Your task to perform on an android device: turn on improve location accuracy Image 0: 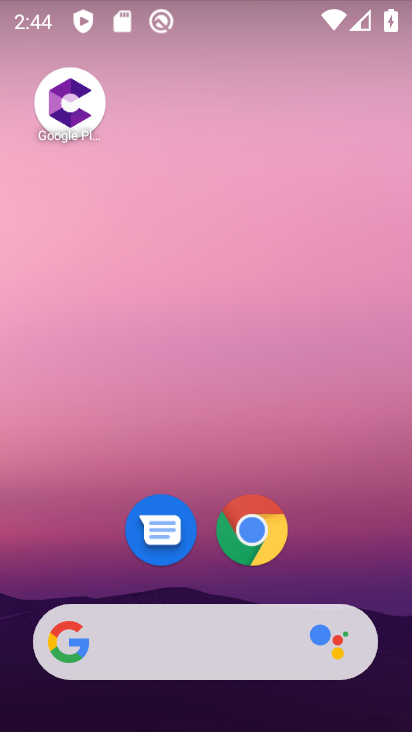
Step 0: drag from (234, 651) to (218, 1)
Your task to perform on an android device: turn on improve location accuracy Image 1: 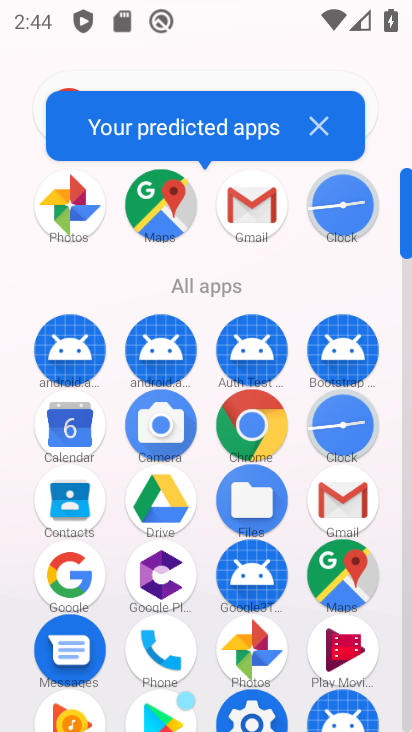
Step 1: drag from (276, 615) to (278, 410)
Your task to perform on an android device: turn on improve location accuracy Image 2: 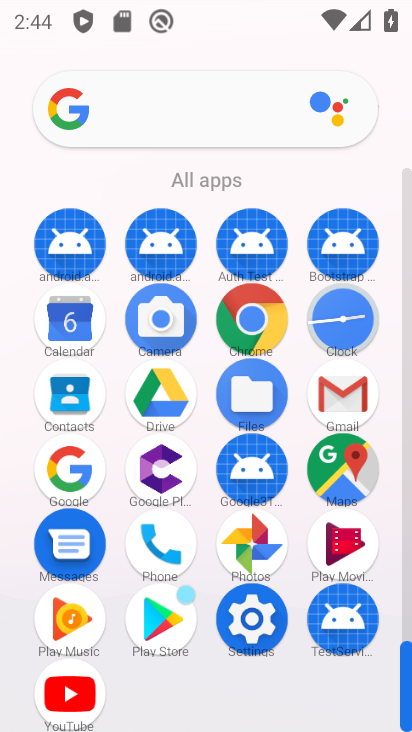
Step 2: click (256, 642)
Your task to perform on an android device: turn on improve location accuracy Image 3: 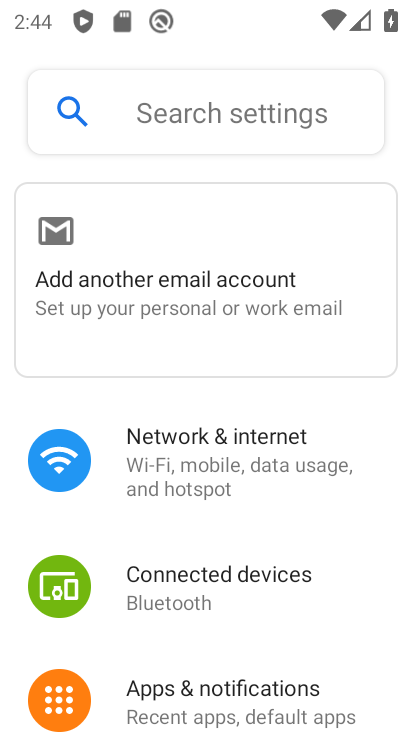
Step 3: drag from (221, 529) to (224, 312)
Your task to perform on an android device: turn on improve location accuracy Image 4: 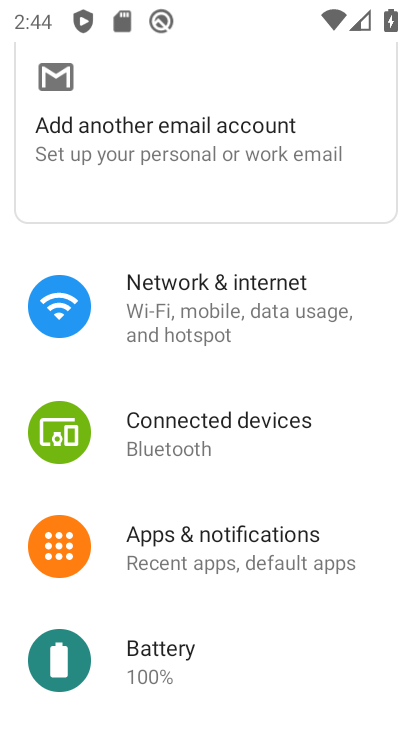
Step 4: drag from (342, 254) to (344, 198)
Your task to perform on an android device: turn on improve location accuracy Image 5: 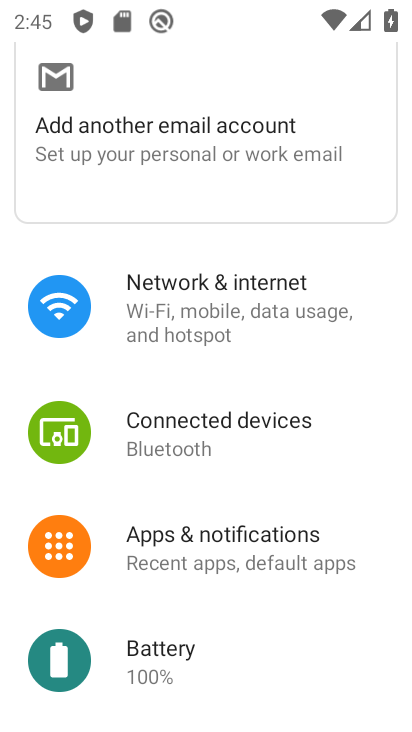
Step 5: drag from (243, 507) to (278, 293)
Your task to perform on an android device: turn on improve location accuracy Image 6: 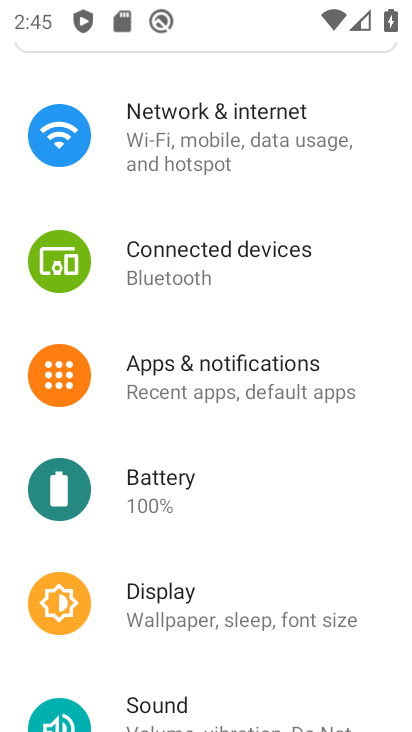
Step 6: drag from (241, 561) to (240, 370)
Your task to perform on an android device: turn on improve location accuracy Image 7: 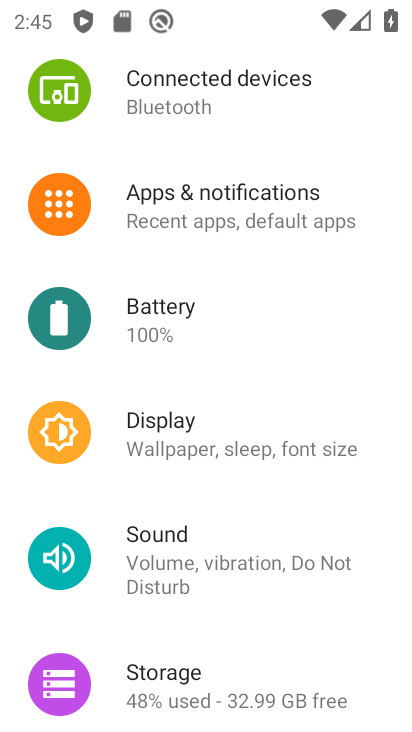
Step 7: drag from (232, 602) to (232, 381)
Your task to perform on an android device: turn on improve location accuracy Image 8: 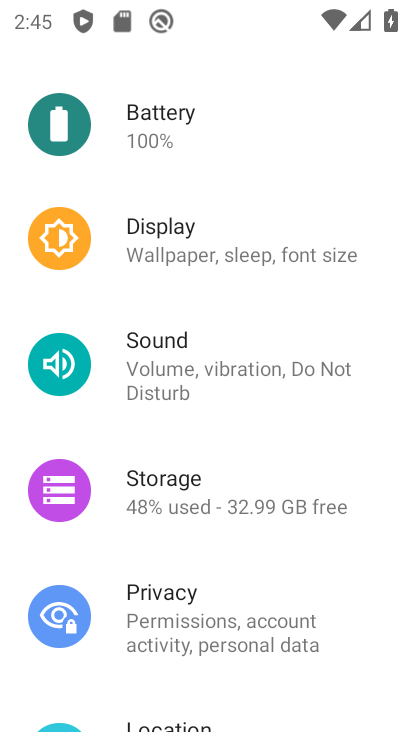
Step 8: drag from (242, 571) to (235, 195)
Your task to perform on an android device: turn on improve location accuracy Image 9: 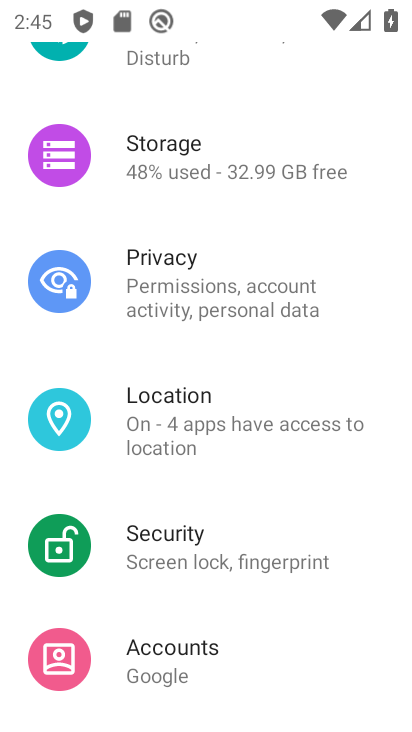
Step 9: drag from (248, 435) to (275, 190)
Your task to perform on an android device: turn on improve location accuracy Image 10: 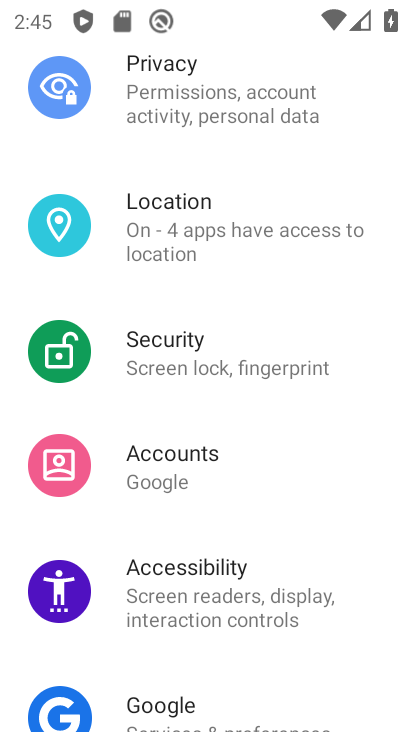
Step 10: drag from (270, 656) to (294, 325)
Your task to perform on an android device: turn on improve location accuracy Image 11: 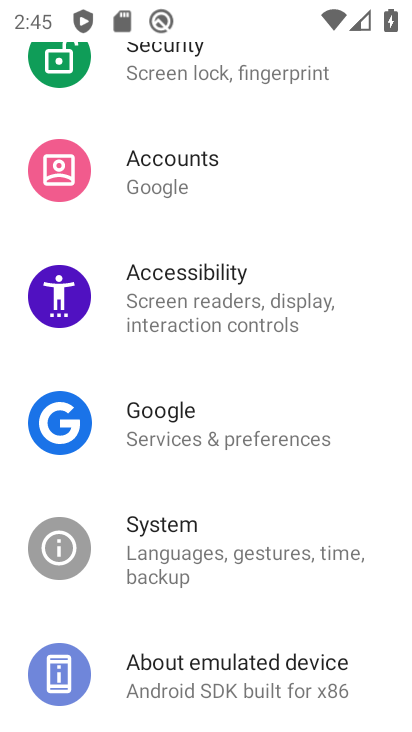
Step 11: drag from (270, 598) to (211, 693)
Your task to perform on an android device: turn on improve location accuracy Image 12: 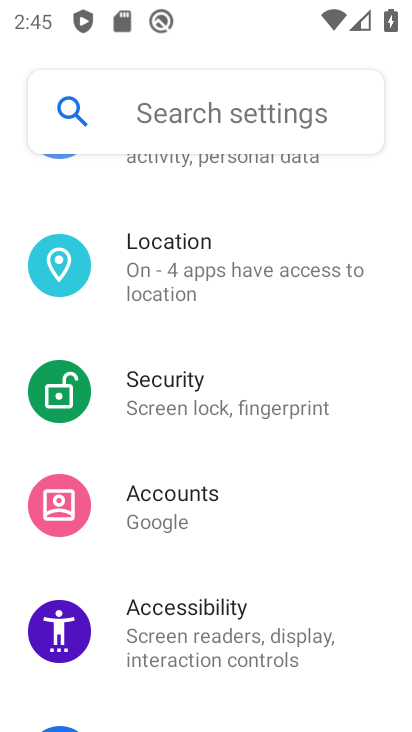
Step 12: drag from (232, 364) to (207, 553)
Your task to perform on an android device: turn on improve location accuracy Image 13: 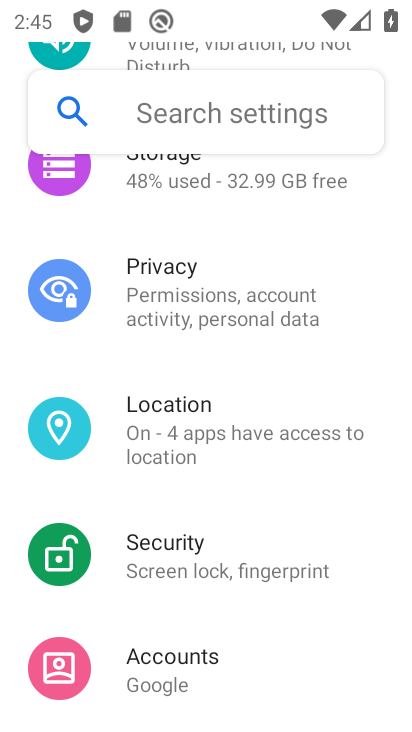
Step 13: drag from (239, 388) to (208, 617)
Your task to perform on an android device: turn on improve location accuracy Image 14: 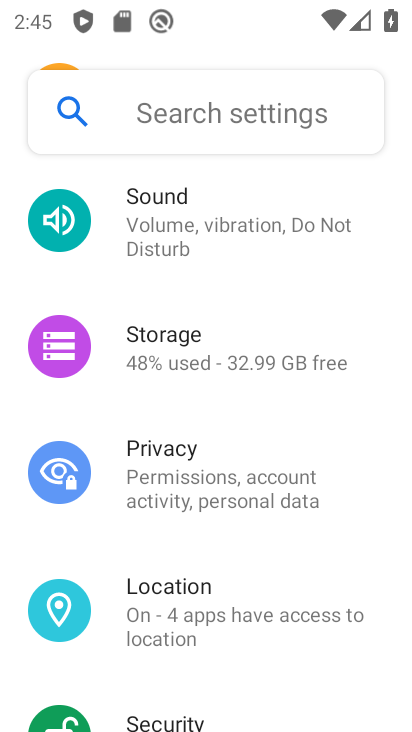
Step 14: click (251, 614)
Your task to perform on an android device: turn on improve location accuracy Image 15: 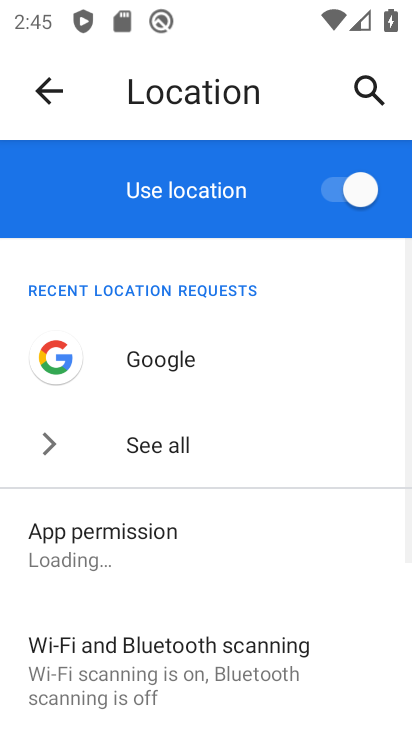
Step 15: drag from (257, 523) to (271, 355)
Your task to perform on an android device: turn on improve location accuracy Image 16: 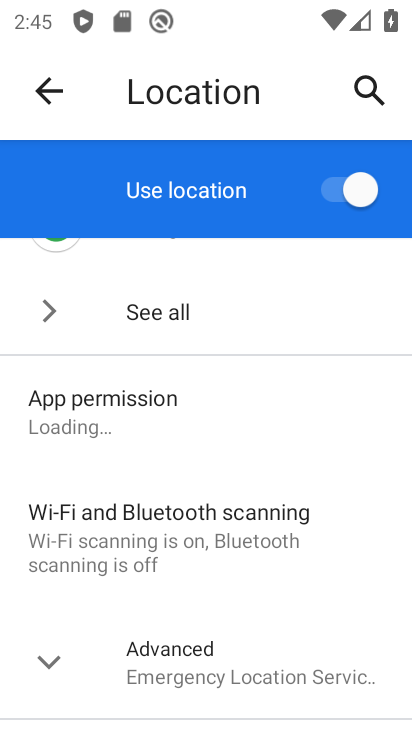
Step 16: click (289, 675)
Your task to perform on an android device: turn on improve location accuracy Image 17: 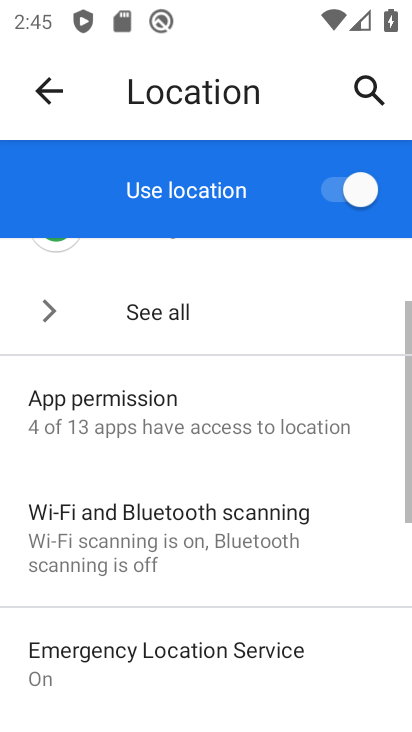
Step 17: drag from (266, 603) to (286, 320)
Your task to perform on an android device: turn on improve location accuracy Image 18: 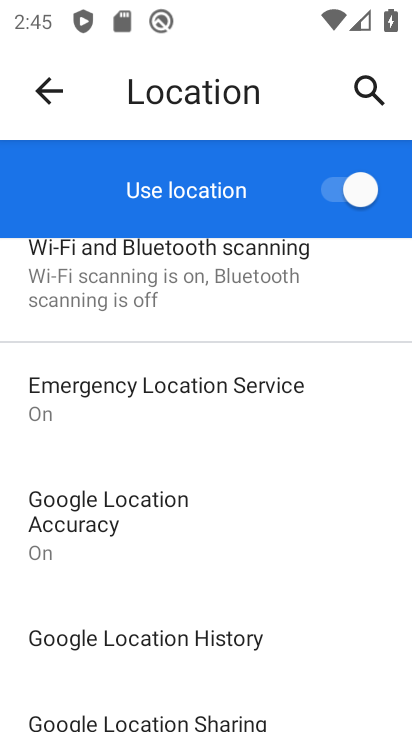
Step 18: drag from (282, 627) to (326, 339)
Your task to perform on an android device: turn on improve location accuracy Image 19: 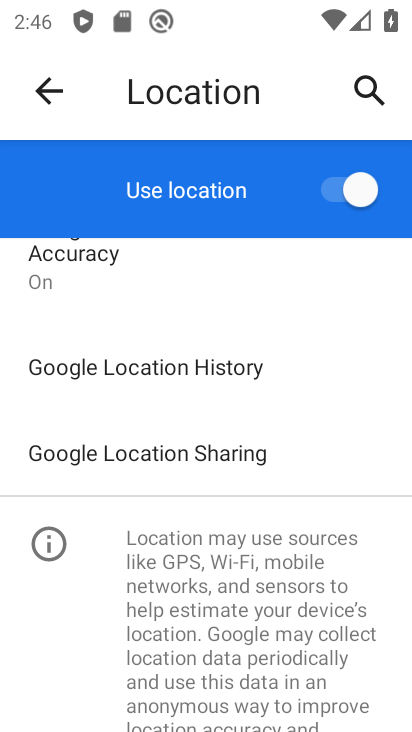
Step 19: drag from (250, 393) to (197, 638)
Your task to perform on an android device: turn on improve location accuracy Image 20: 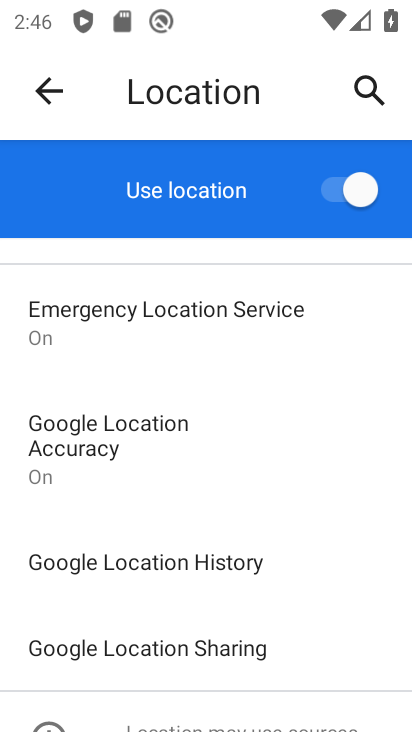
Step 20: click (169, 413)
Your task to perform on an android device: turn on improve location accuracy Image 21: 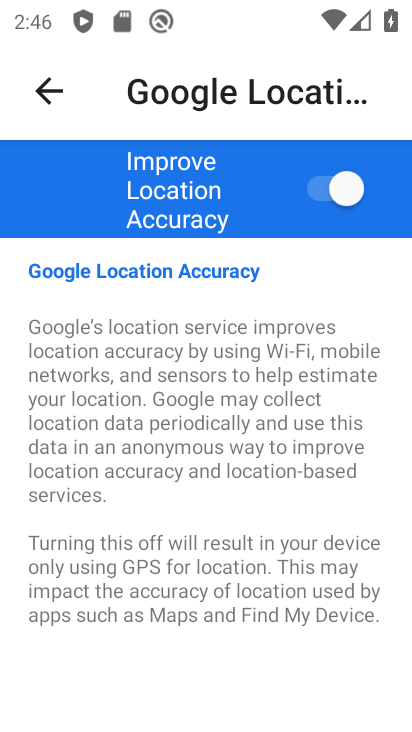
Step 21: task complete